Your task to perform on an android device: check out phone information Image 0: 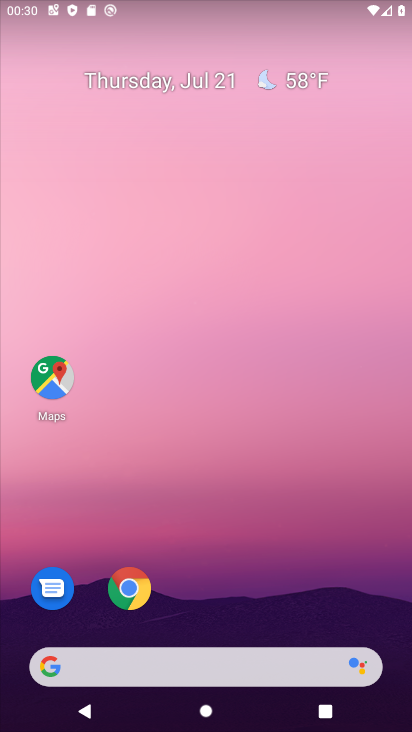
Step 0: drag from (214, 606) to (247, 268)
Your task to perform on an android device: check out phone information Image 1: 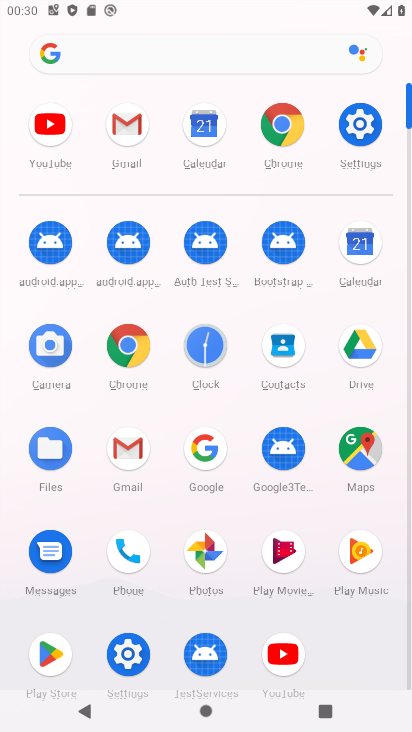
Step 1: click (128, 665)
Your task to perform on an android device: check out phone information Image 2: 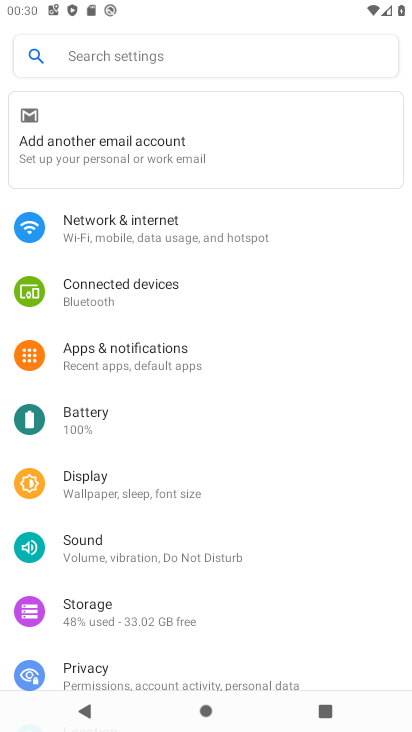
Step 2: drag from (119, 599) to (157, 204)
Your task to perform on an android device: check out phone information Image 3: 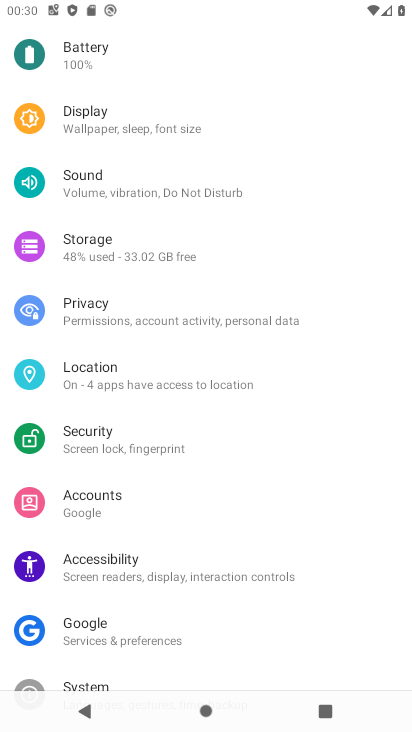
Step 3: drag from (111, 634) to (147, 219)
Your task to perform on an android device: check out phone information Image 4: 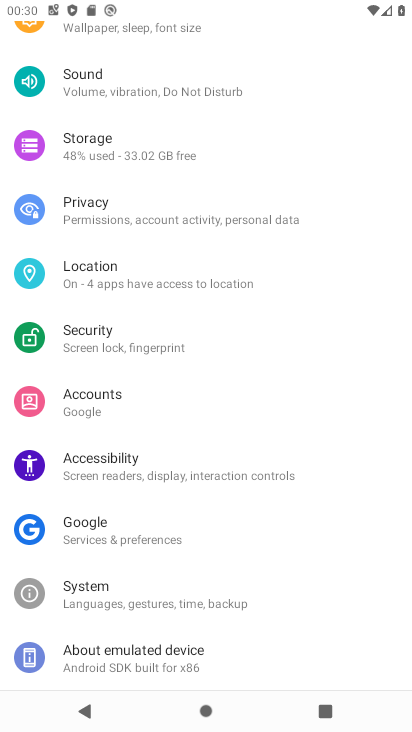
Step 4: click (128, 656)
Your task to perform on an android device: check out phone information Image 5: 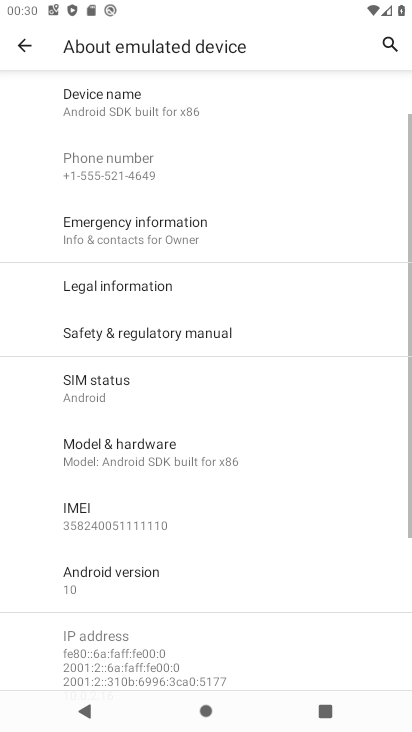
Step 5: task complete